Your task to perform on an android device: open app "The Home Depot" (install if not already installed), go to login, and select forgot password Image 0: 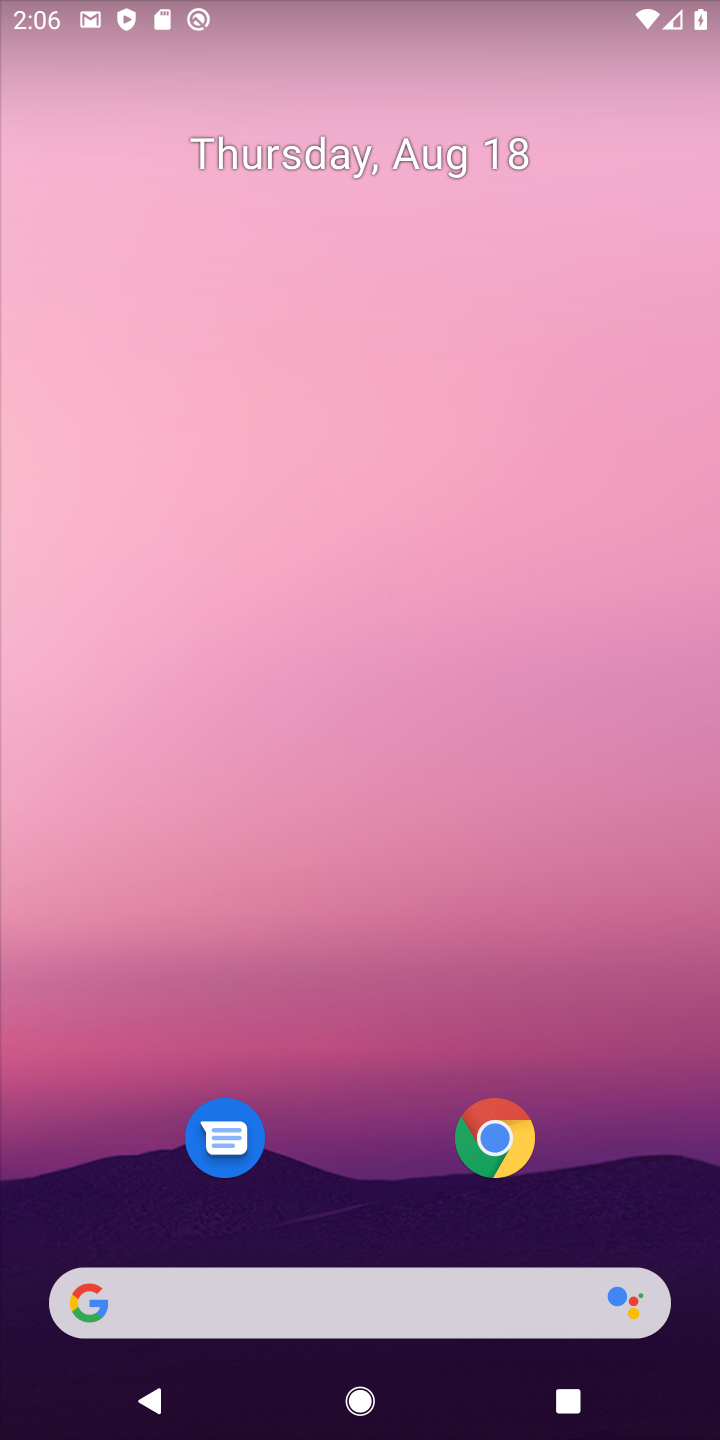
Step 0: drag from (461, 1247) to (420, 247)
Your task to perform on an android device: open app "The Home Depot" (install if not already installed), go to login, and select forgot password Image 1: 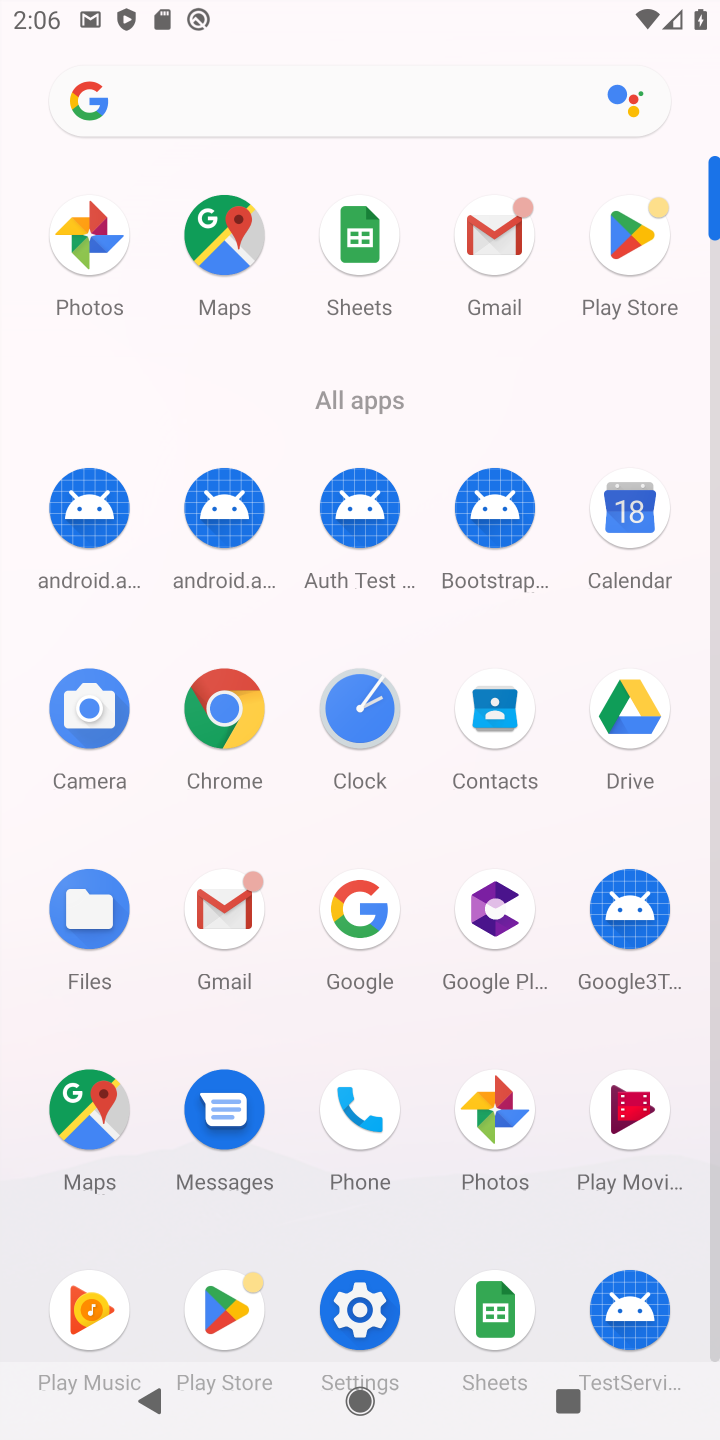
Step 1: click (614, 240)
Your task to perform on an android device: open app "The Home Depot" (install if not already installed), go to login, and select forgot password Image 2: 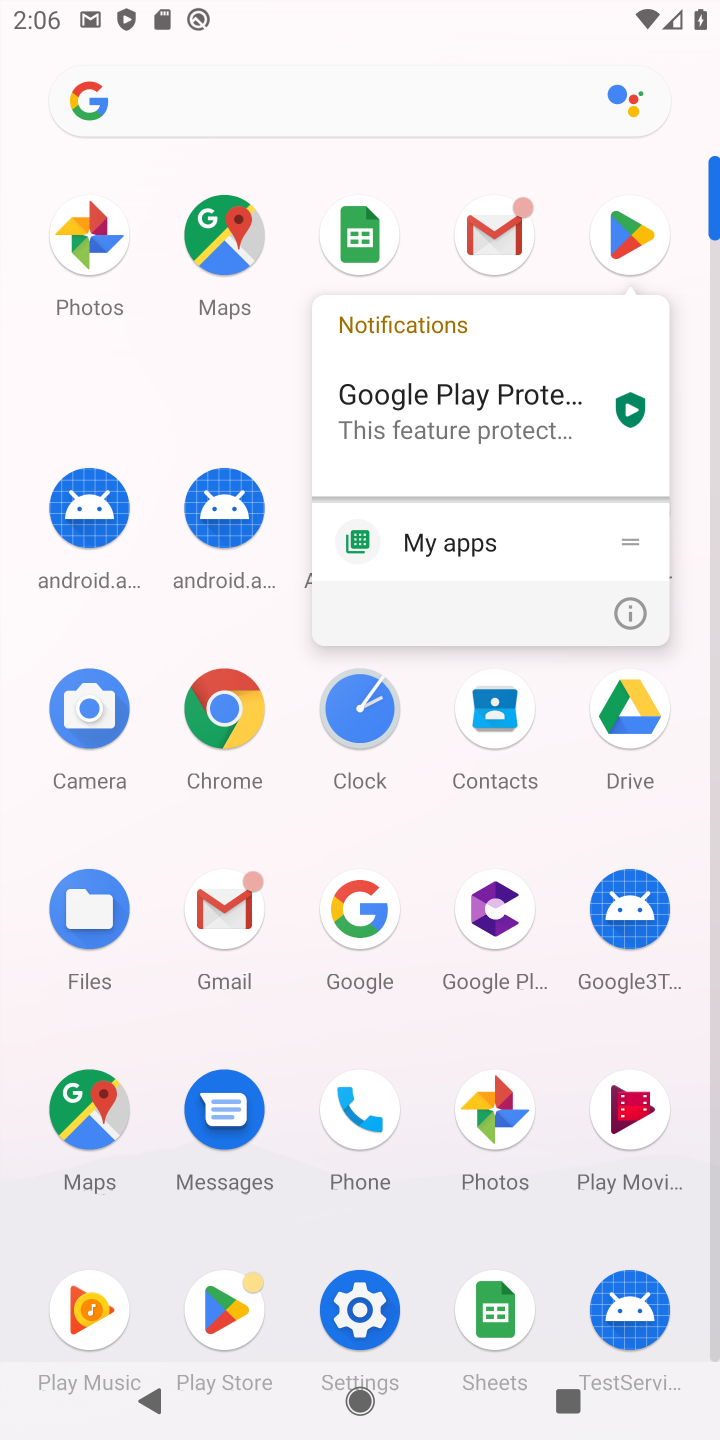
Step 2: click (613, 235)
Your task to perform on an android device: open app "The Home Depot" (install if not already installed), go to login, and select forgot password Image 3: 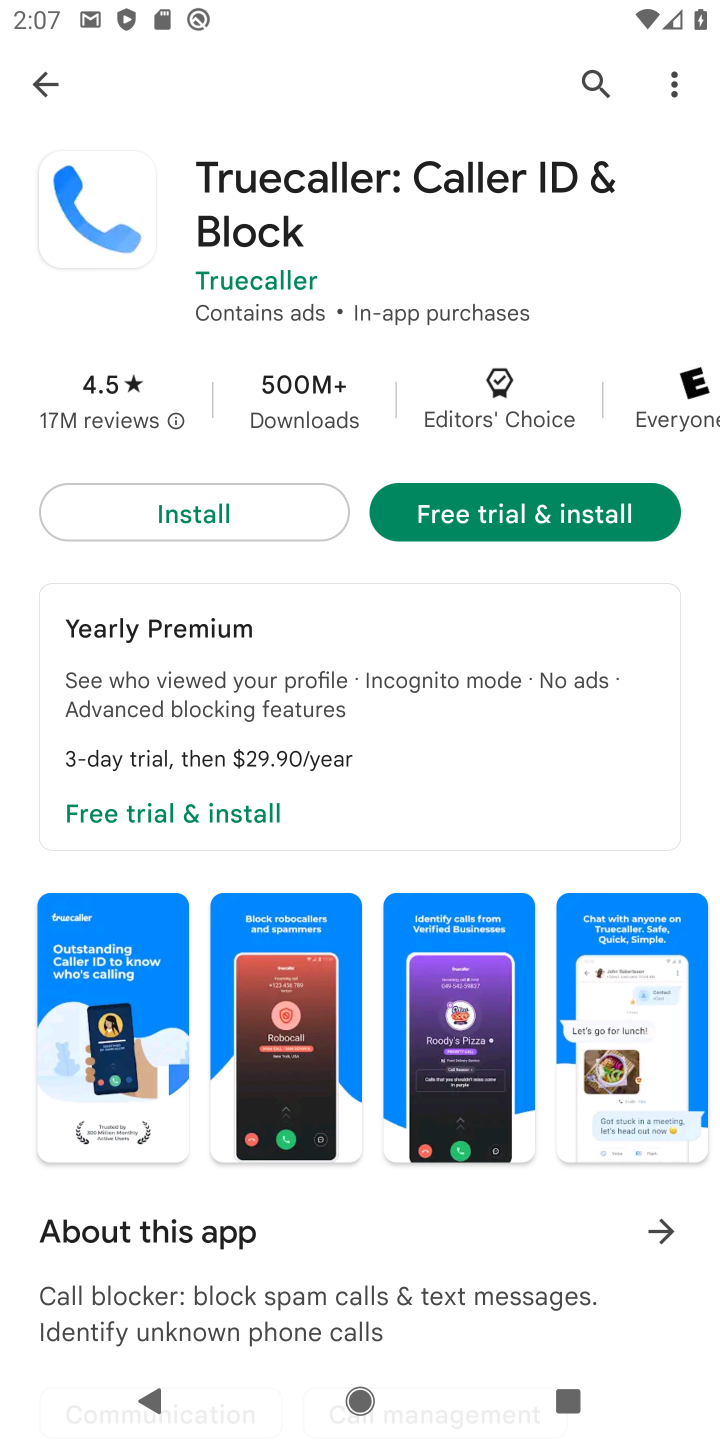
Step 3: click (9, 75)
Your task to perform on an android device: open app "The Home Depot" (install if not already installed), go to login, and select forgot password Image 4: 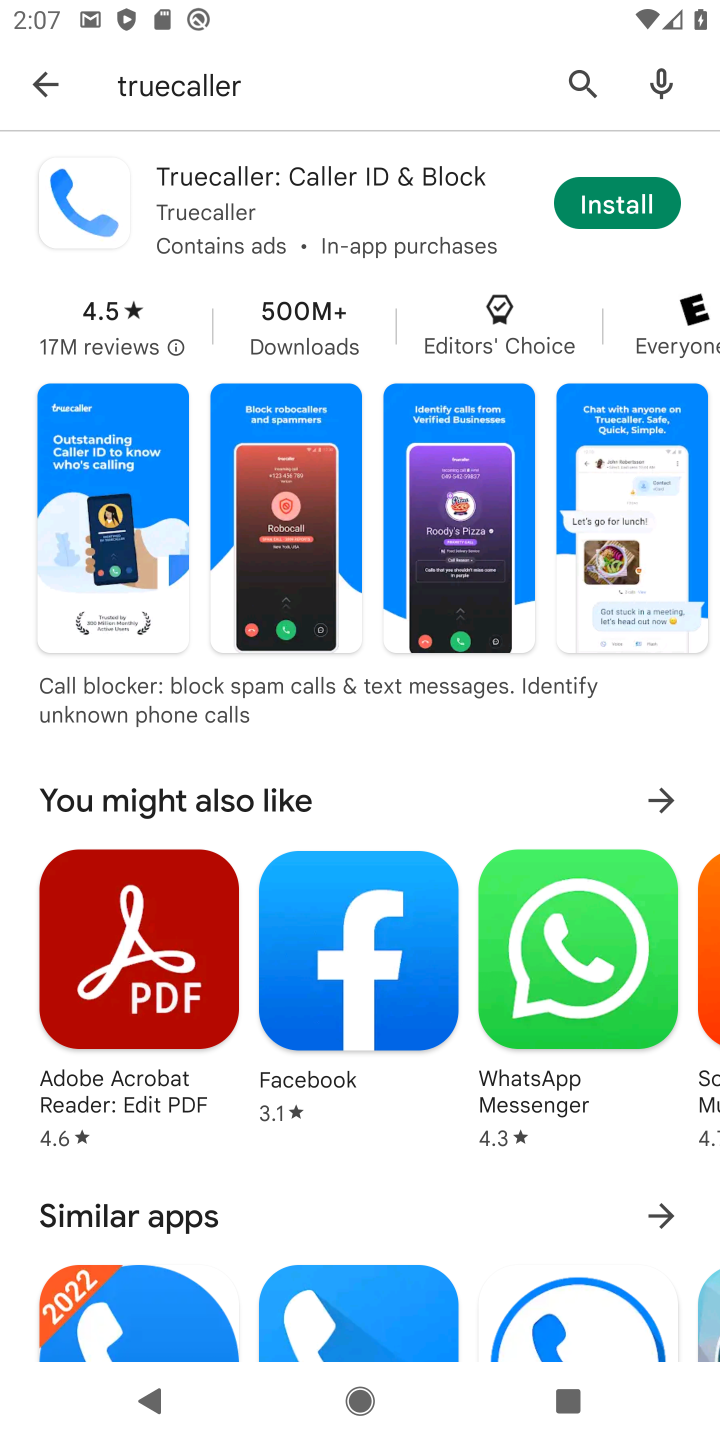
Step 4: click (4, 65)
Your task to perform on an android device: open app "The Home Depot" (install if not already installed), go to login, and select forgot password Image 5: 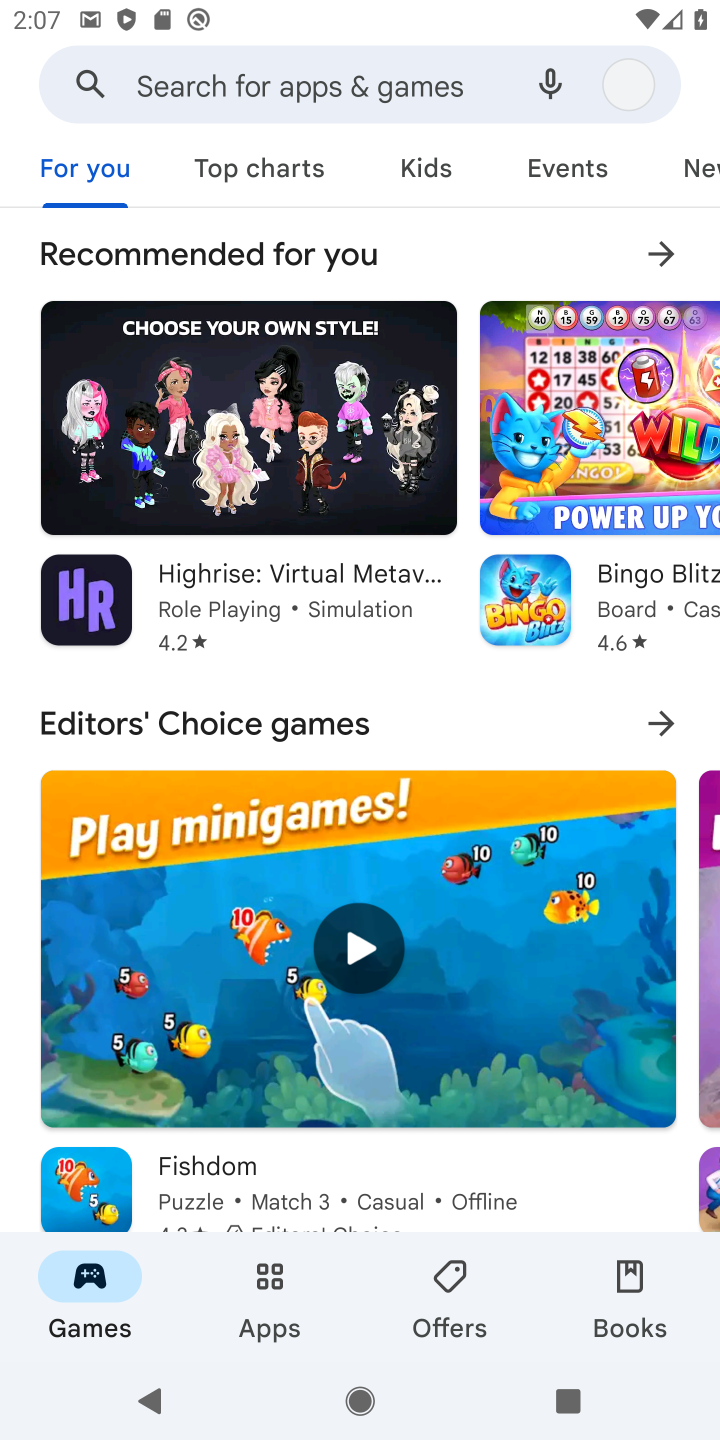
Step 5: click (152, 84)
Your task to perform on an android device: open app "The Home Depot" (install if not already installed), go to login, and select forgot password Image 6: 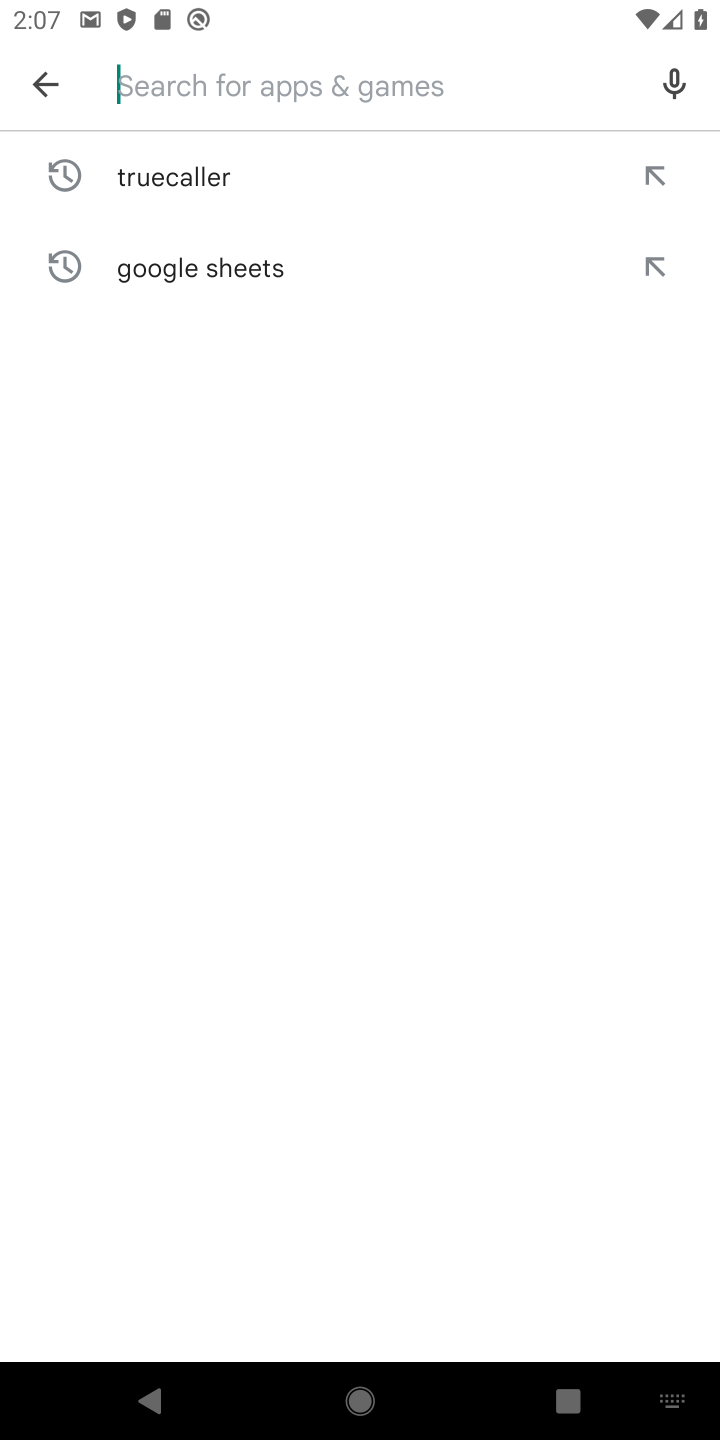
Step 6: type "The Home Depo"
Your task to perform on an android device: open app "The Home Depot" (install if not already installed), go to login, and select forgot password Image 7: 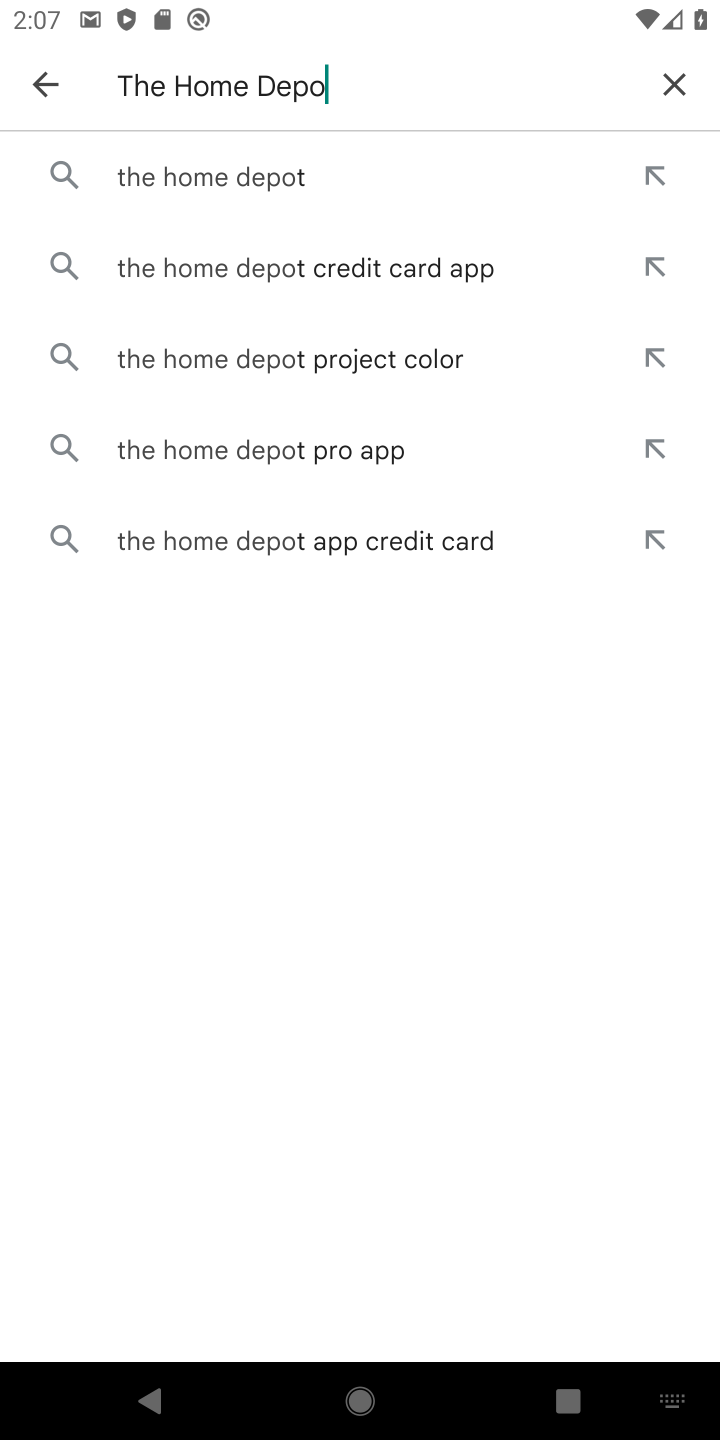
Step 7: click (232, 194)
Your task to perform on an android device: open app "The Home Depot" (install if not already installed), go to login, and select forgot password Image 8: 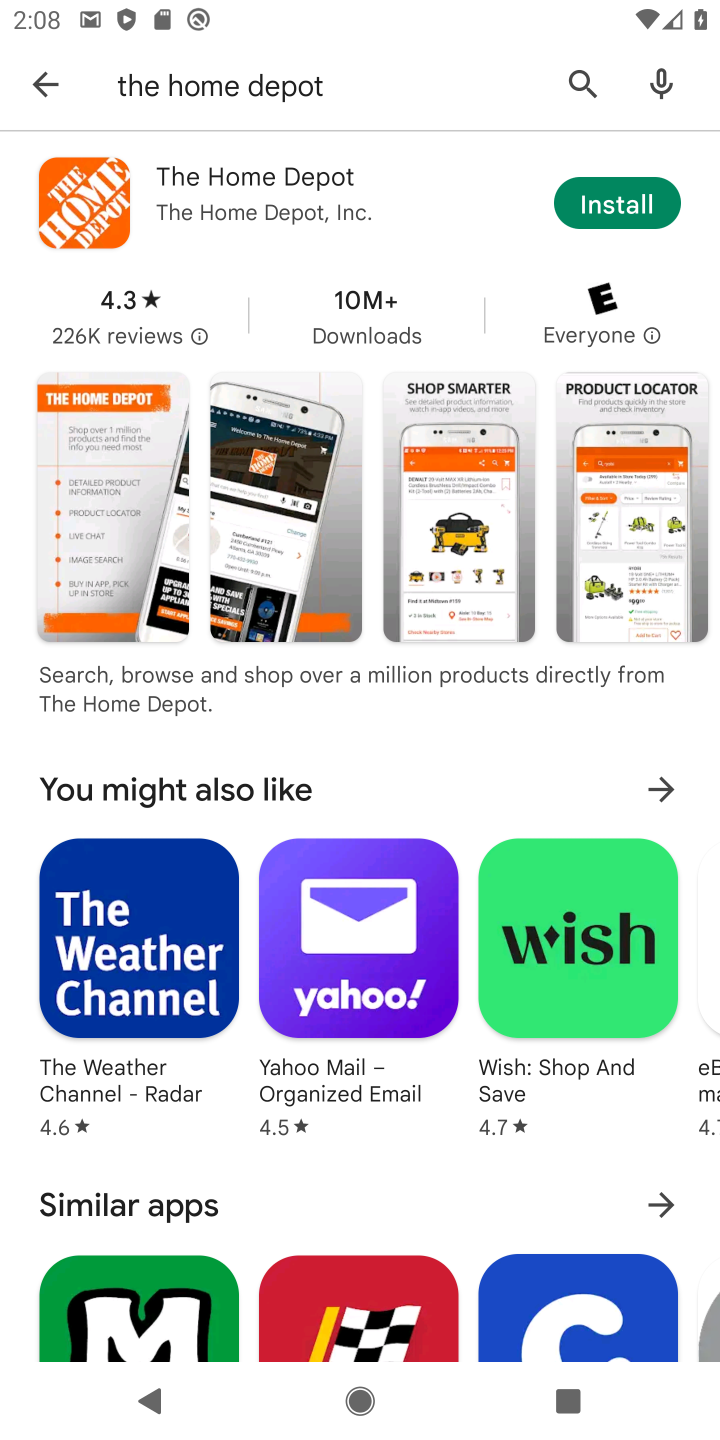
Step 8: click (615, 214)
Your task to perform on an android device: open app "The Home Depot" (install if not already installed), go to login, and select forgot password Image 9: 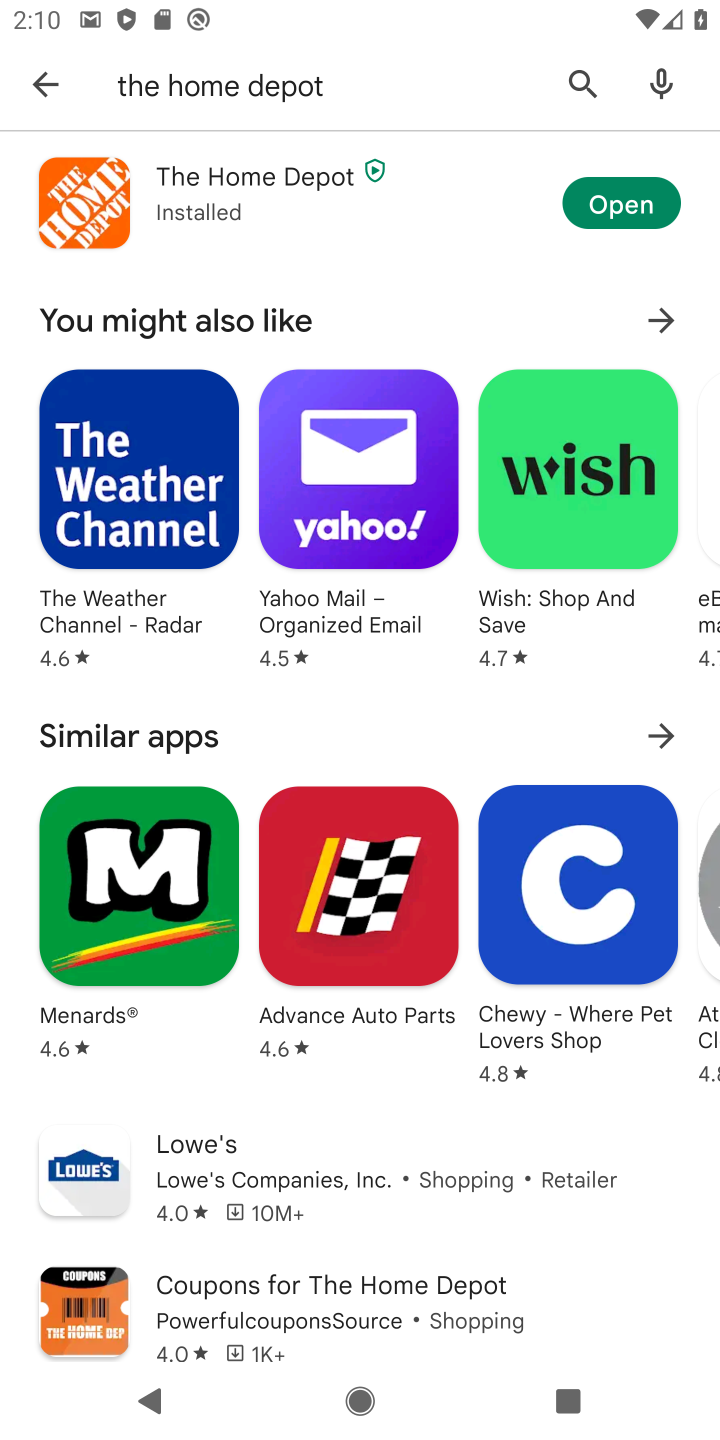
Step 9: click (600, 212)
Your task to perform on an android device: open app "The Home Depot" (install if not already installed), go to login, and select forgot password Image 10: 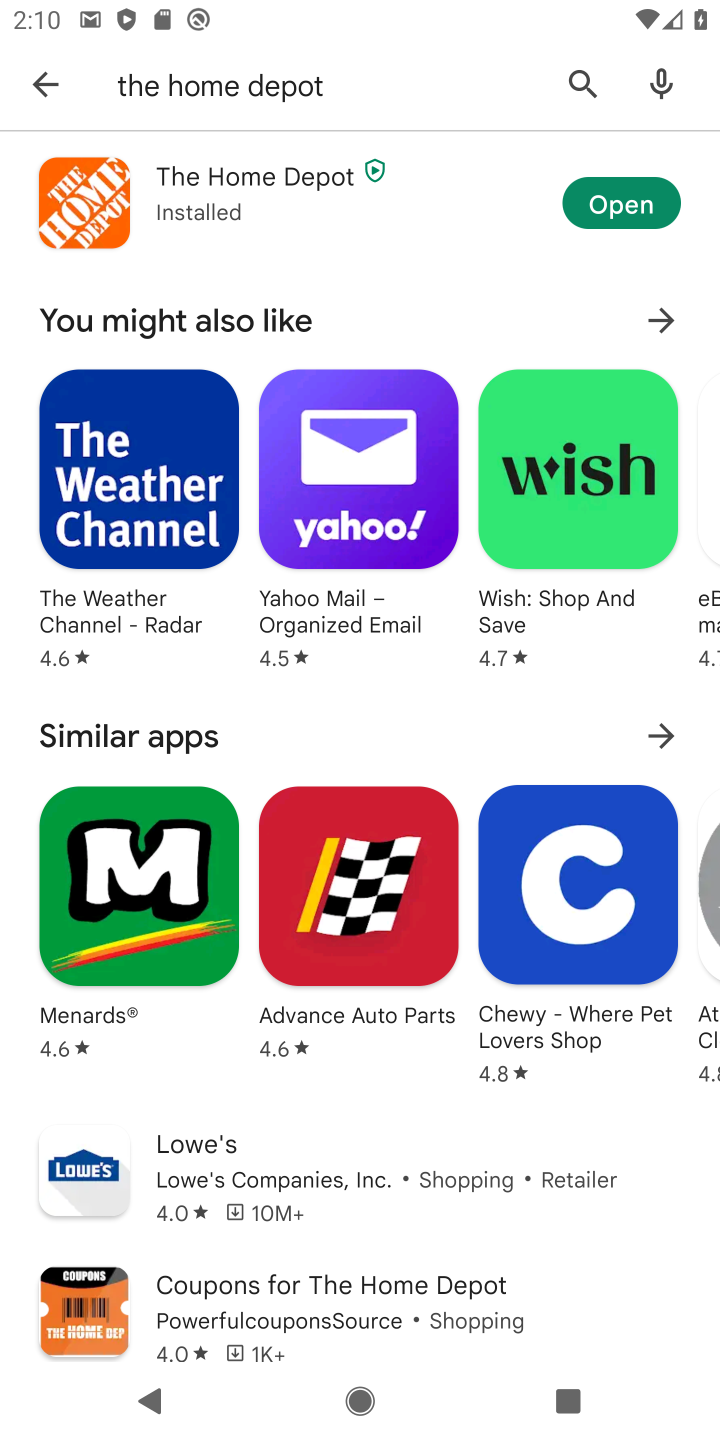
Step 10: task complete